Your task to perform on an android device: see sites visited before in the chrome app Image 0: 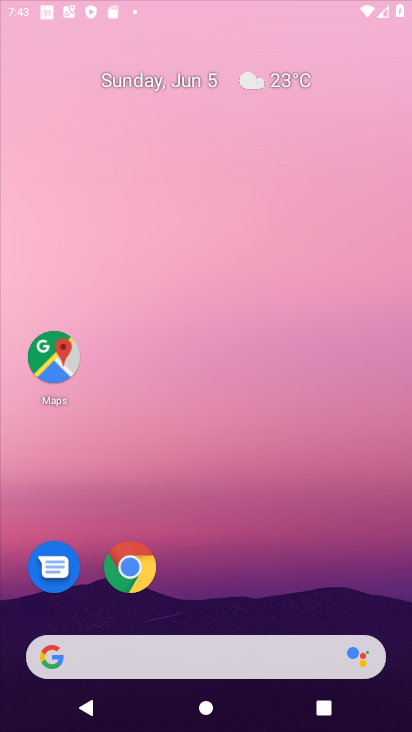
Step 0: click (282, 28)
Your task to perform on an android device: see sites visited before in the chrome app Image 1: 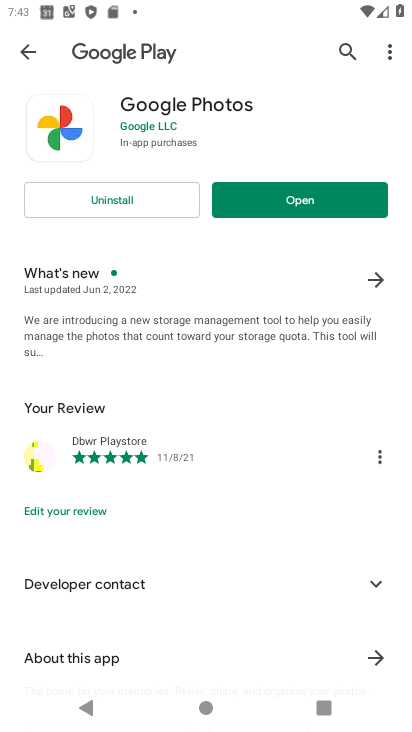
Step 1: press home button
Your task to perform on an android device: see sites visited before in the chrome app Image 2: 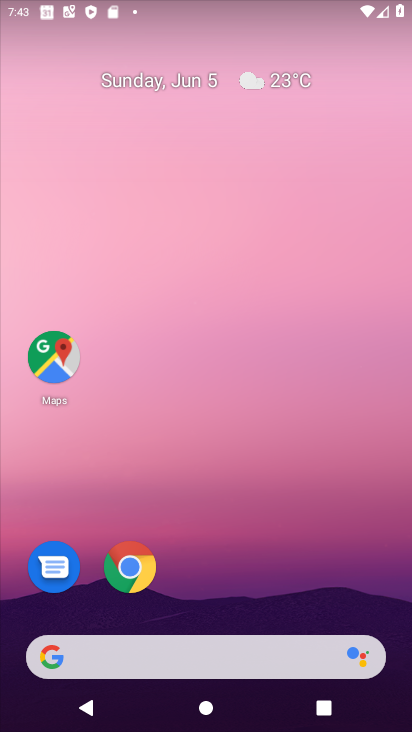
Step 2: drag from (390, 649) to (260, 0)
Your task to perform on an android device: see sites visited before in the chrome app Image 3: 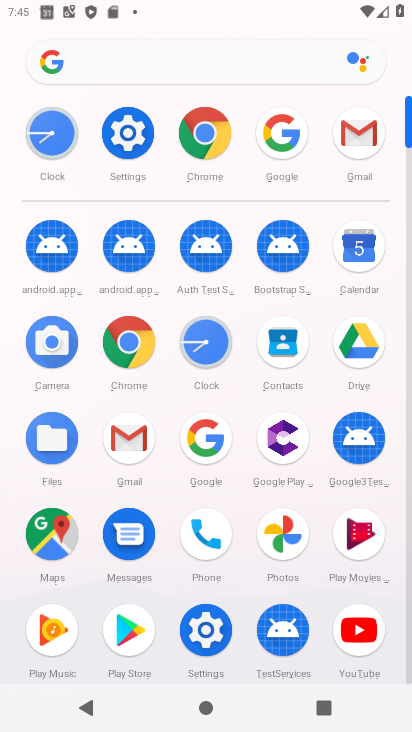
Step 3: click (119, 330)
Your task to perform on an android device: see sites visited before in the chrome app Image 4: 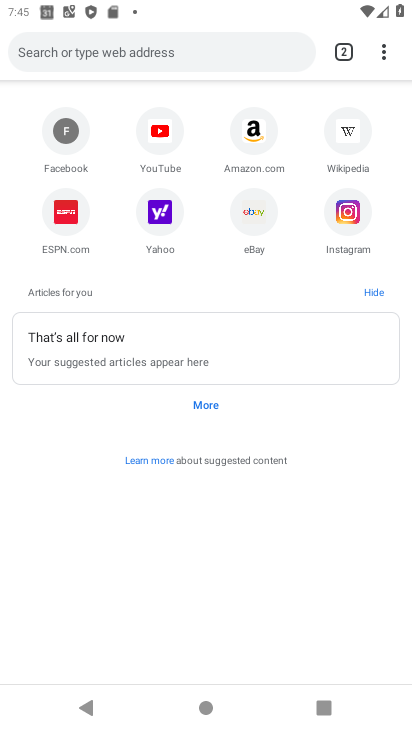
Step 4: click (380, 48)
Your task to perform on an android device: see sites visited before in the chrome app Image 5: 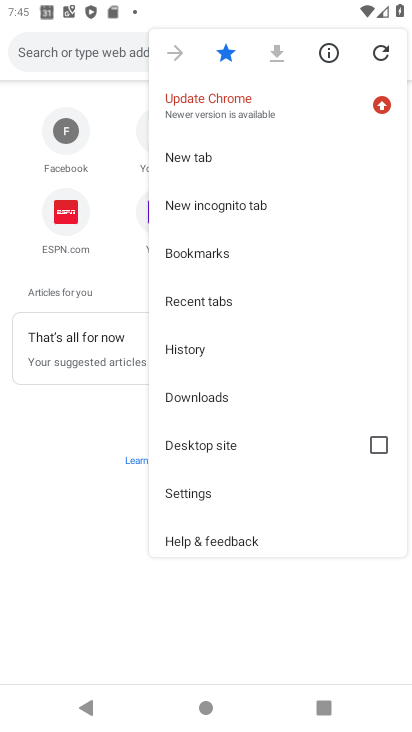
Step 5: click (181, 353)
Your task to perform on an android device: see sites visited before in the chrome app Image 6: 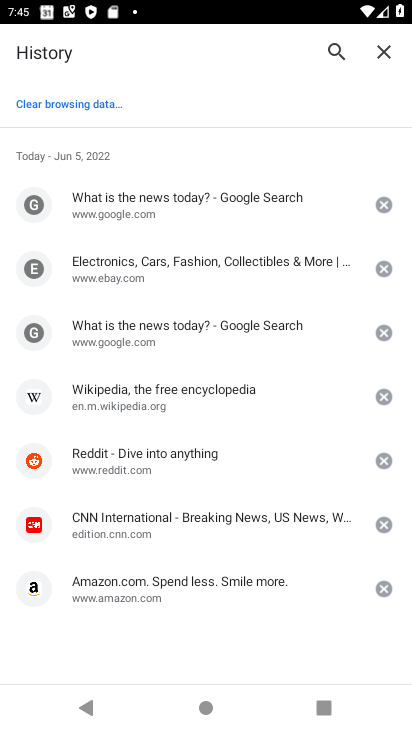
Step 6: click (173, 190)
Your task to perform on an android device: see sites visited before in the chrome app Image 7: 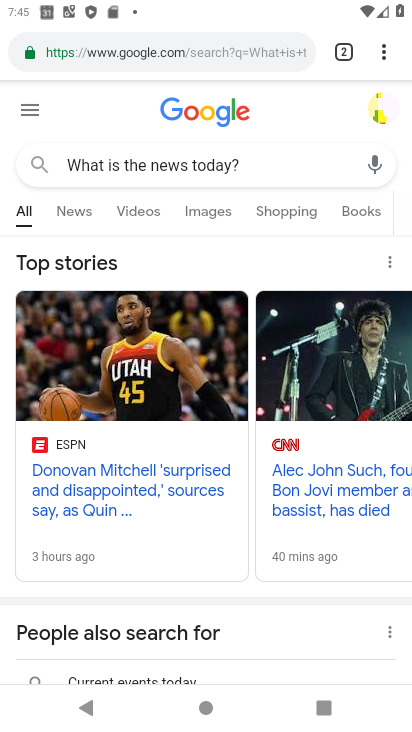
Step 7: task complete